Your task to perform on an android device: Search for "alienware aurora" on bestbuy.com, select the first entry, and add it to the cart. Image 0: 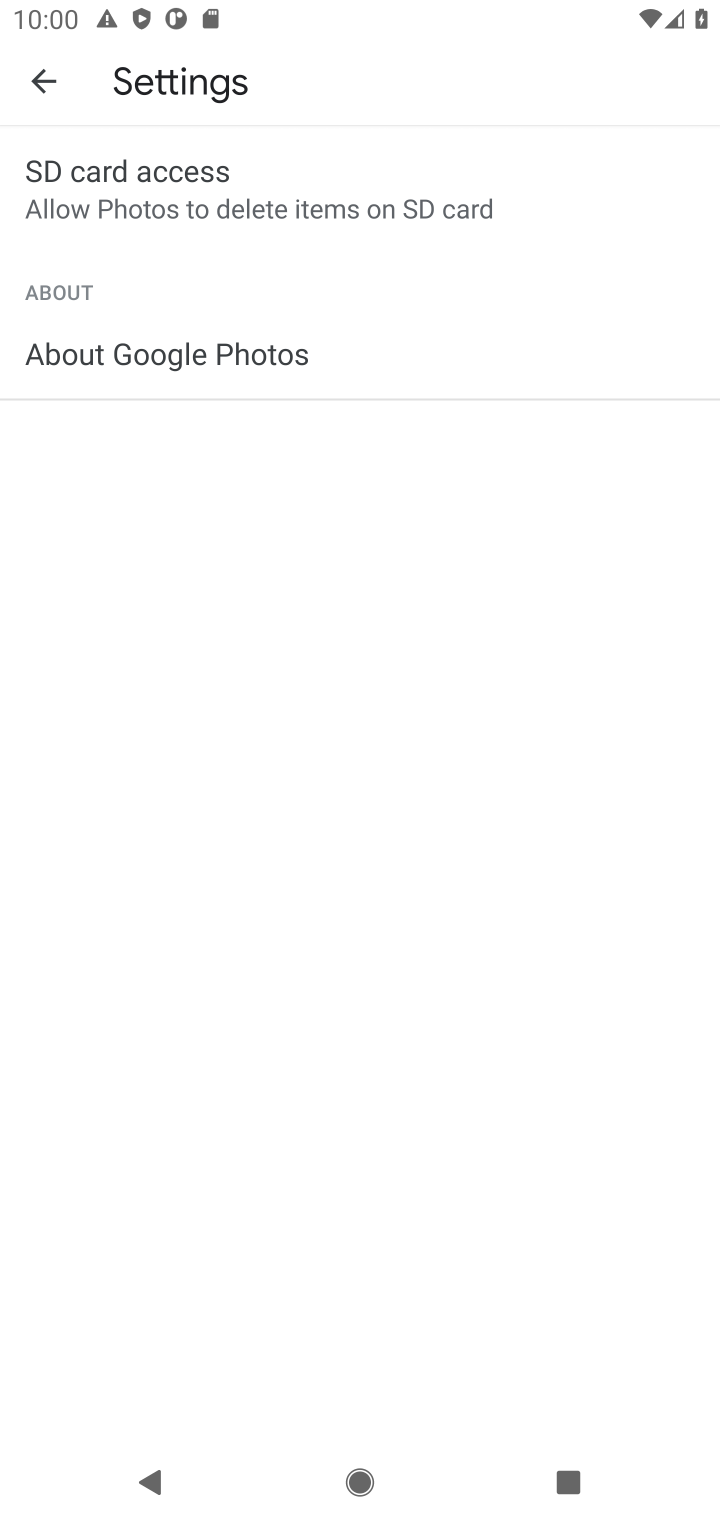
Step 0: press home button
Your task to perform on an android device: Search for "alienware aurora" on bestbuy.com, select the first entry, and add it to the cart. Image 1: 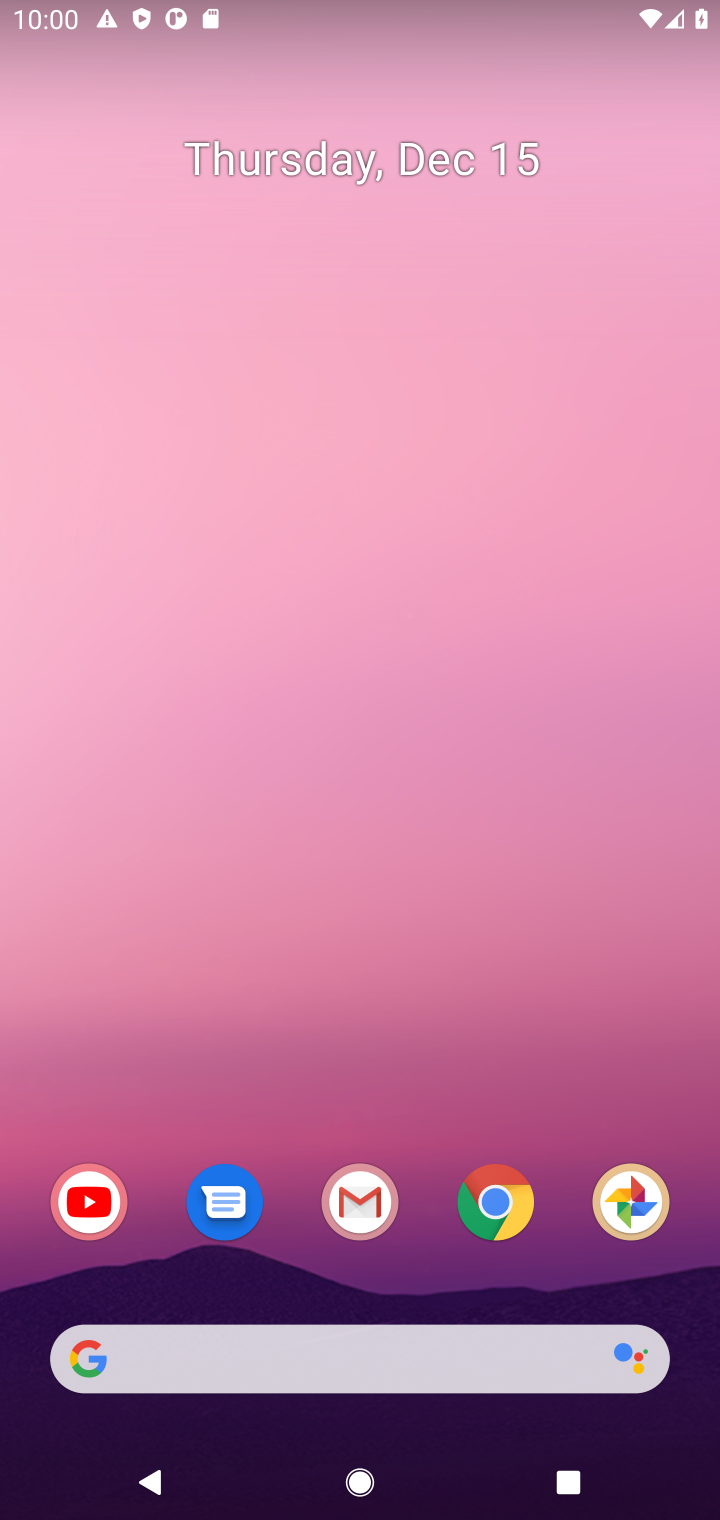
Step 1: click (497, 1209)
Your task to perform on an android device: Search for "alienware aurora" on bestbuy.com, select the first entry, and add it to the cart. Image 2: 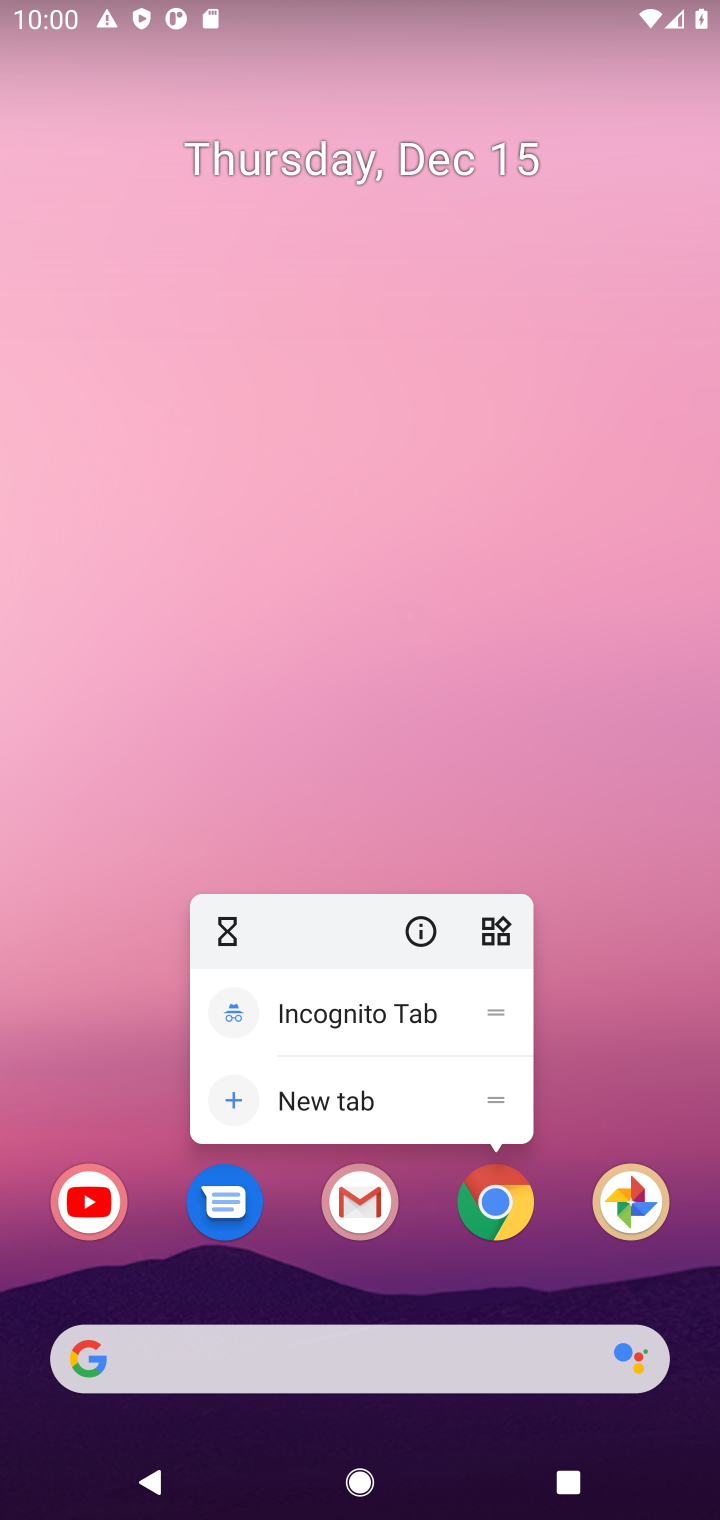
Step 2: click (492, 1211)
Your task to perform on an android device: Search for "alienware aurora" on bestbuy.com, select the first entry, and add it to the cart. Image 3: 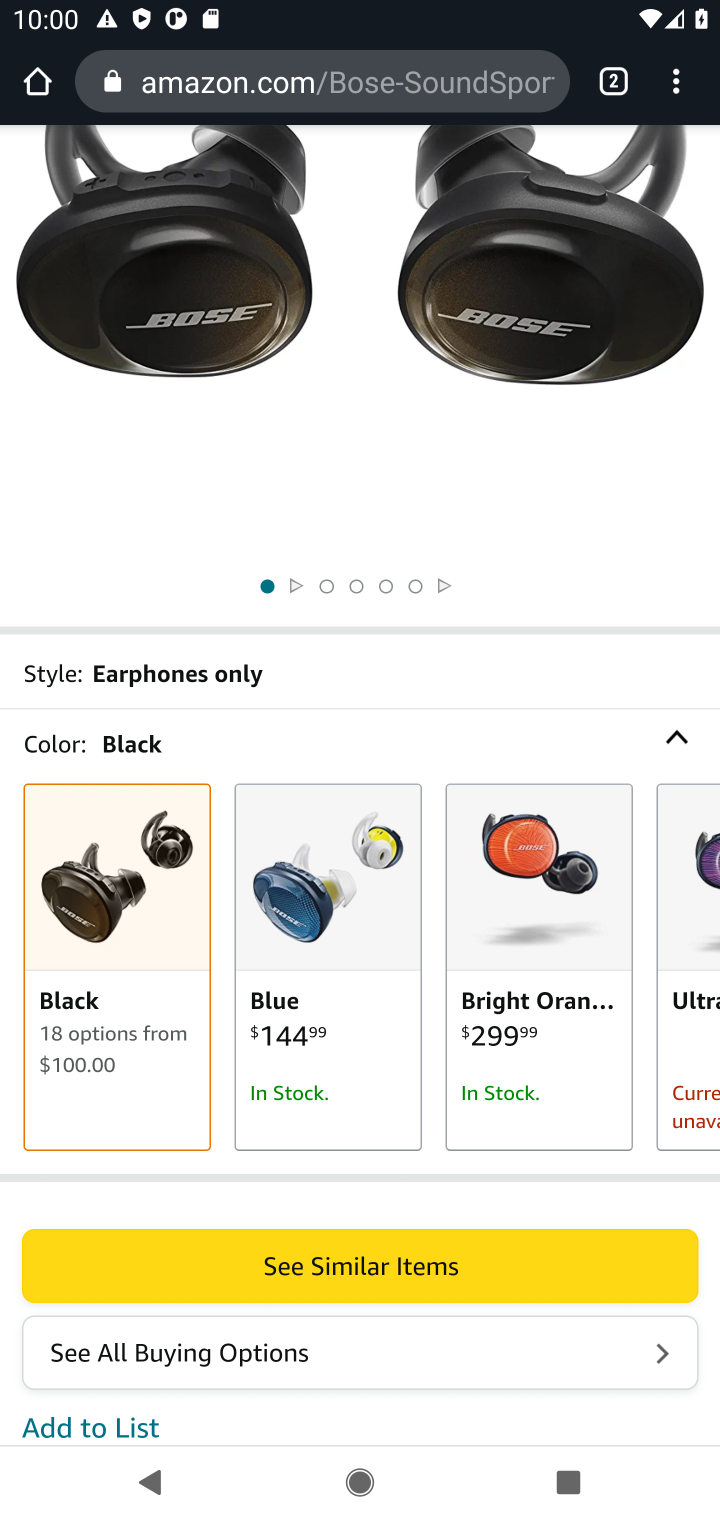
Step 3: click (316, 71)
Your task to perform on an android device: Search for "alienware aurora" on bestbuy.com, select the first entry, and add it to the cart. Image 4: 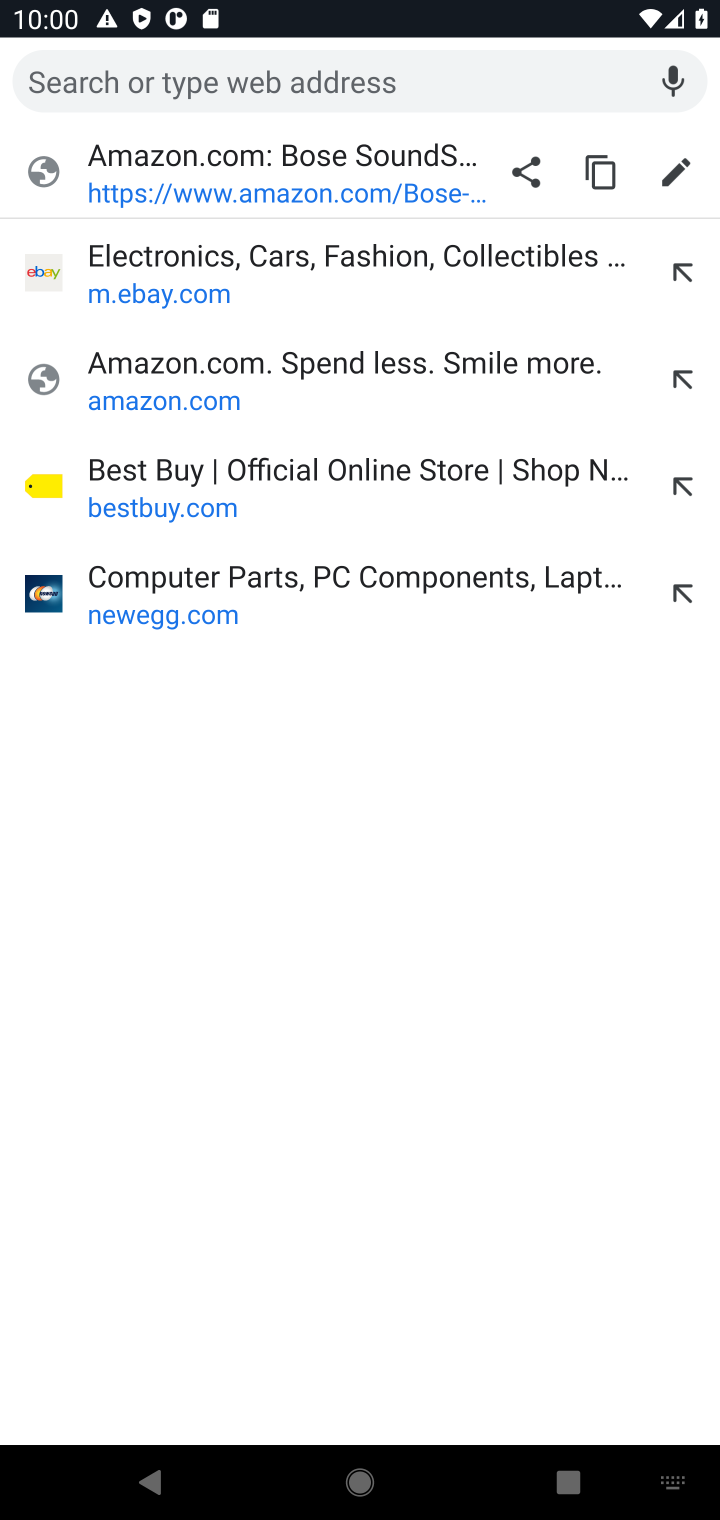
Step 4: click (157, 487)
Your task to perform on an android device: Search for "alienware aurora" on bestbuy.com, select the first entry, and add it to the cart. Image 5: 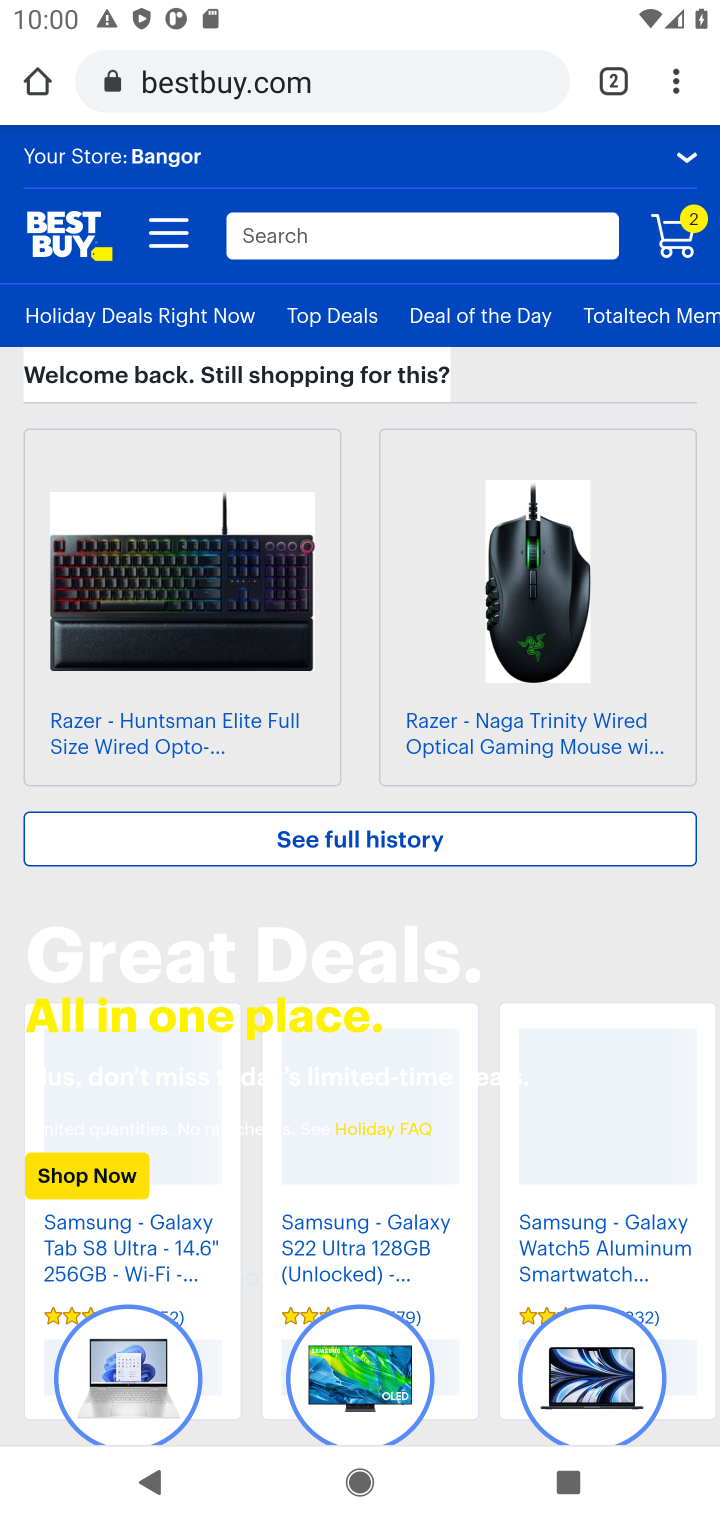
Step 5: click (341, 247)
Your task to perform on an android device: Search for "alienware aurora" on bestbuy.com, select the first entry, and add it to the cart. Image 6: 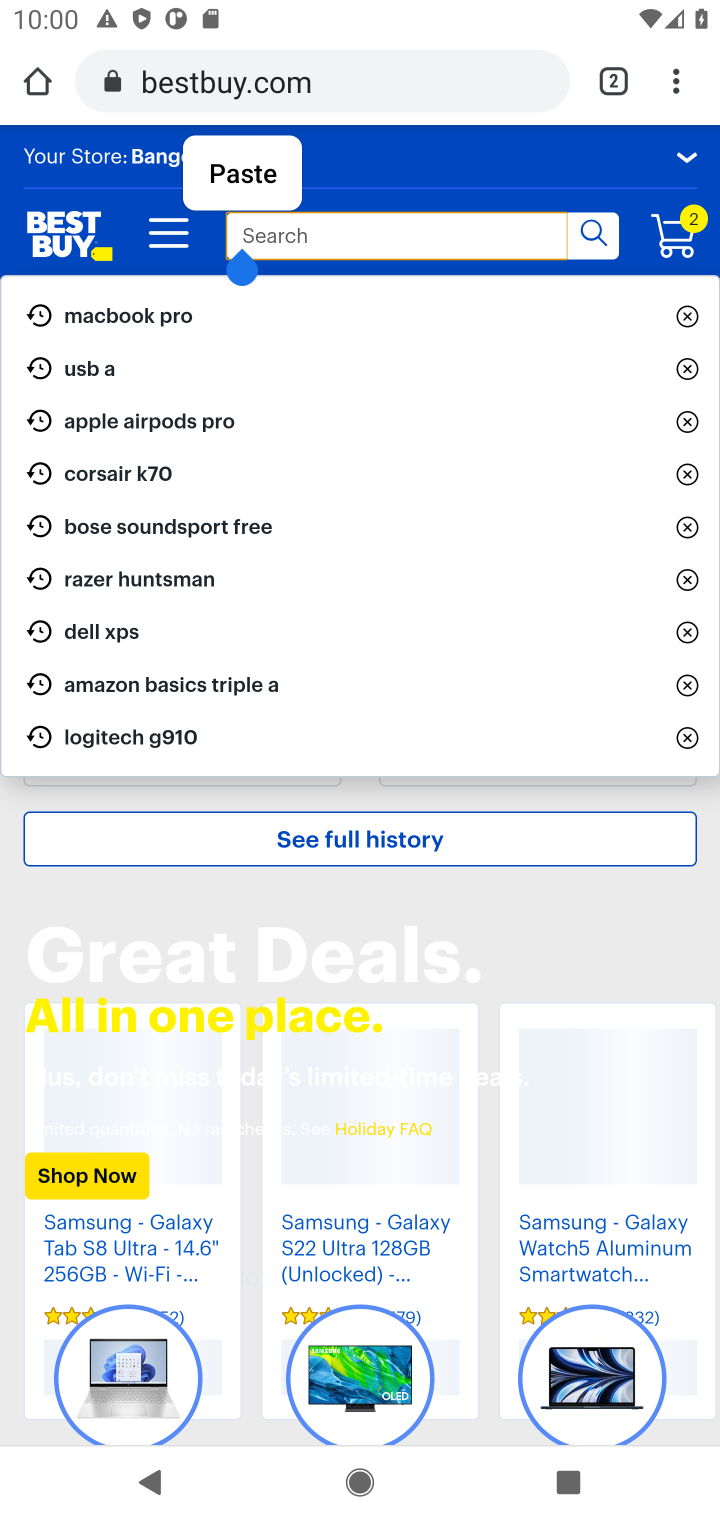
Step 6: type "alienware aurora"
Your task to perform on an android device: Search for "alienware aurora" on bestbuy.com, select the first entry, and add it to the cart. Image 7: 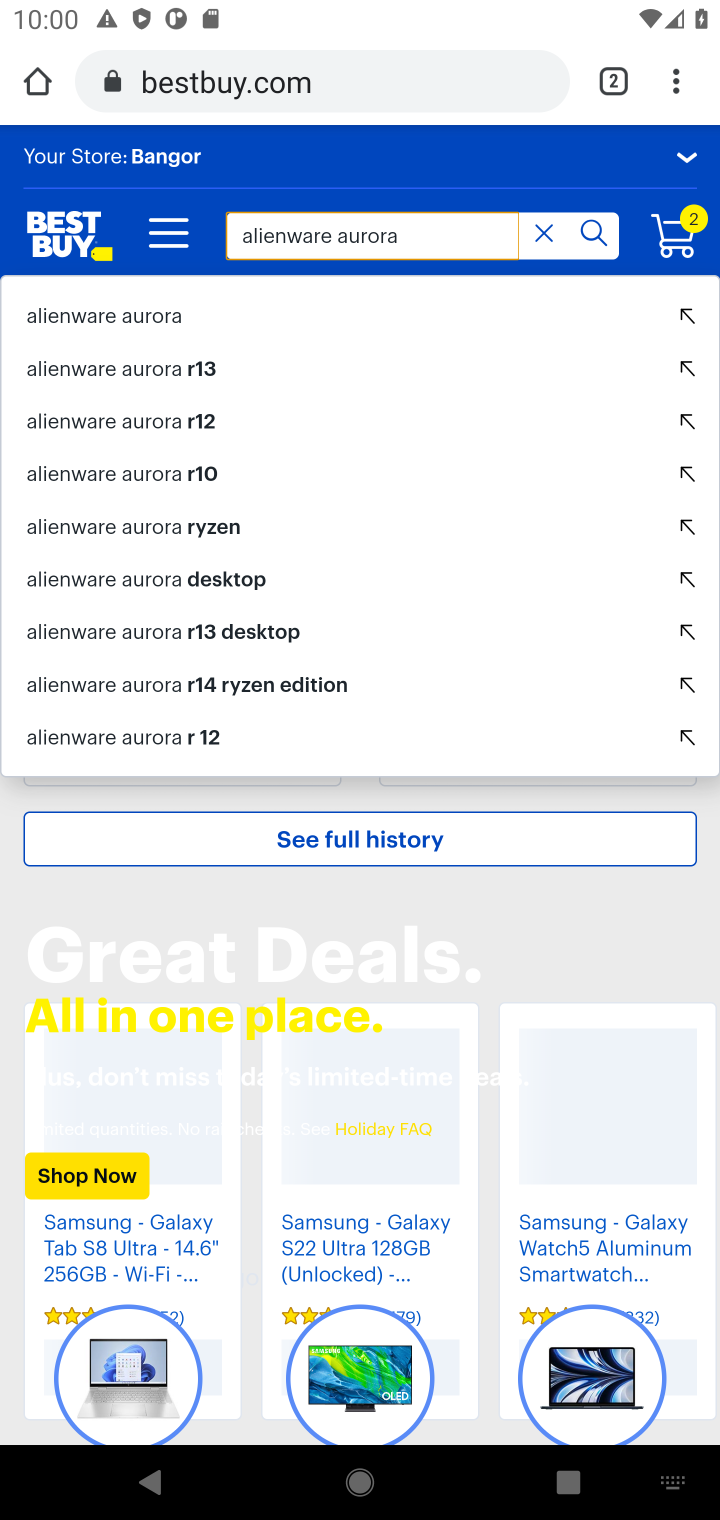
Step 7: click (140, 329)
Your task to perform on an android device: Search for "alienware aurora" on bestbuy.com, select the first entry, and add it to the cart. Image 8: 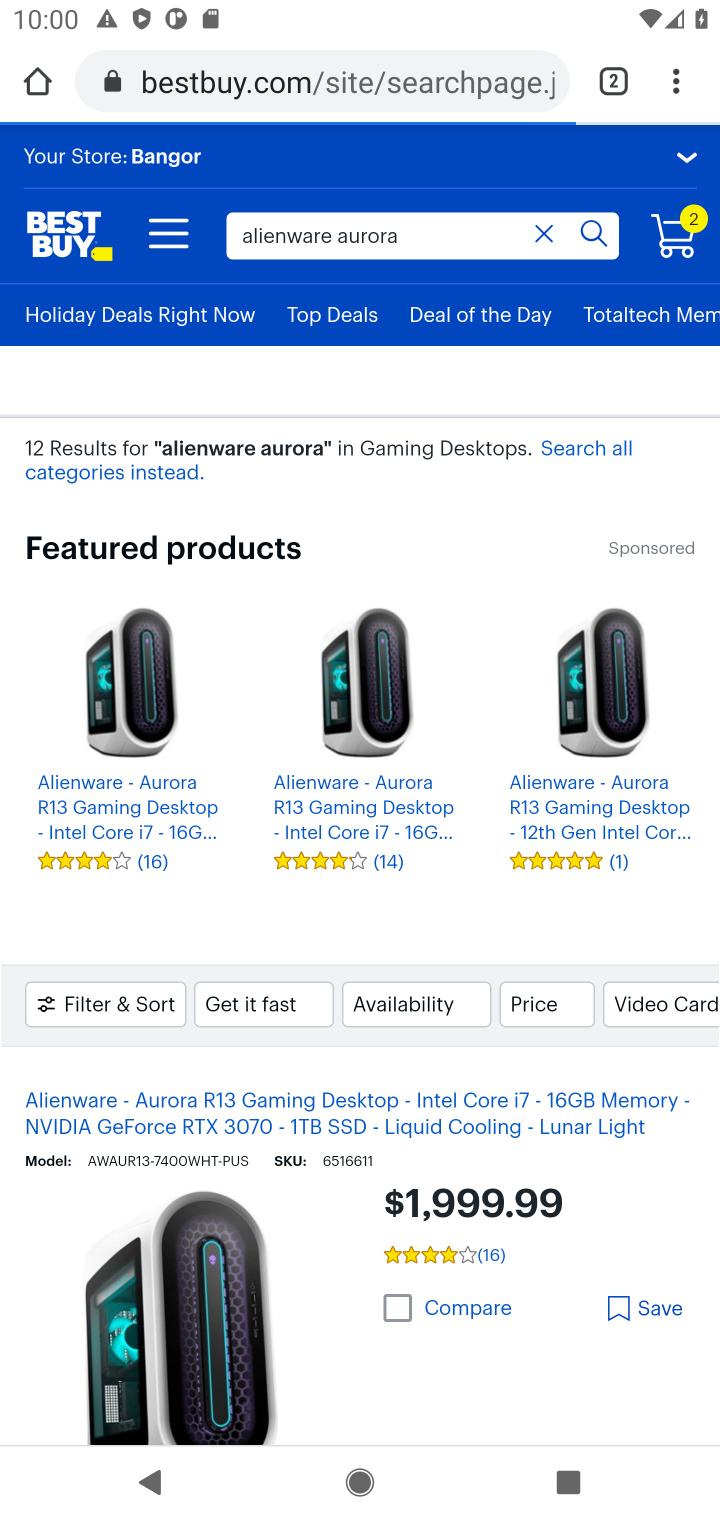
Step 8: drag from (219, 1014) to (235, 469)
Your task to perform on an android device: Search for "alienware aurora" on bestbuy.com, select the first entry, and add it to the cart. Image 9: 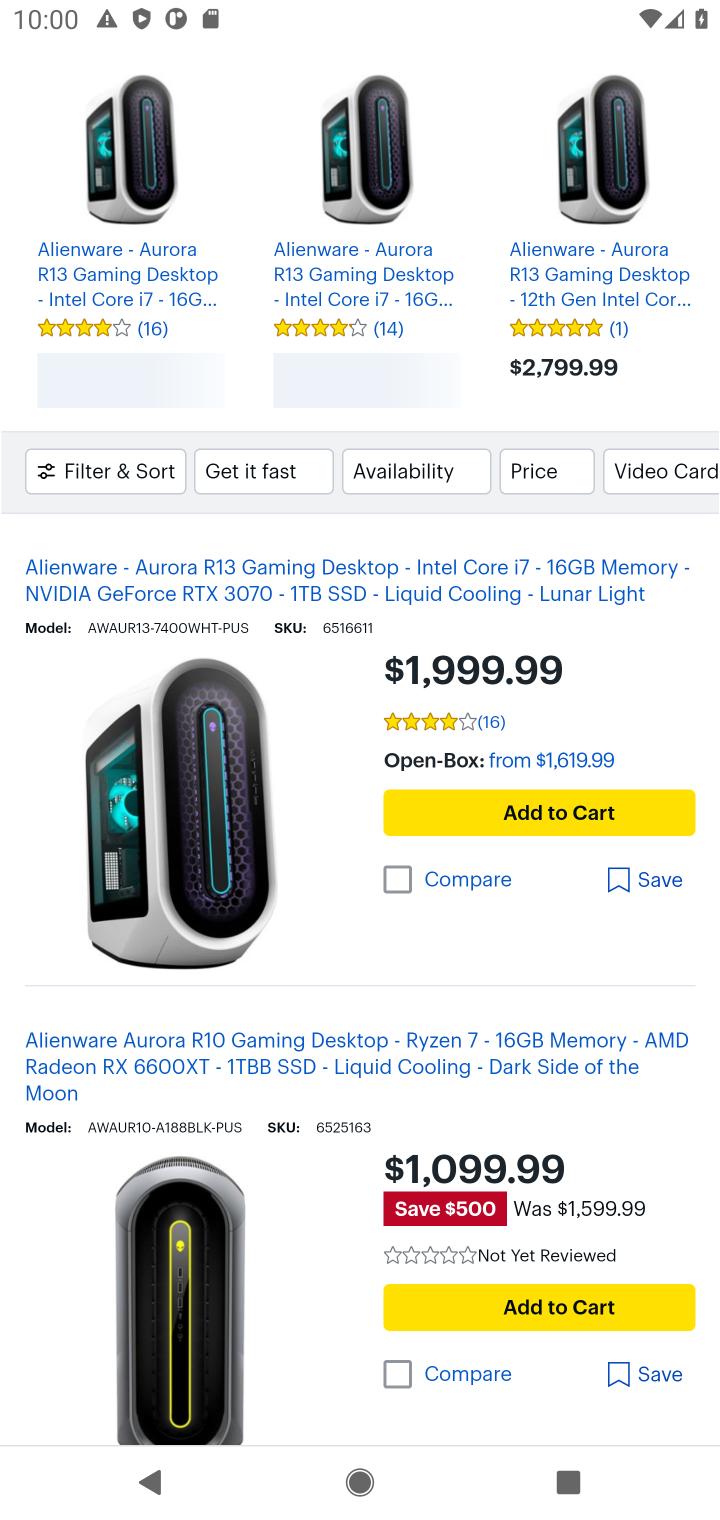
Step 9: click (502, 819)
Your task to perform on an android device: Search for "alienware aurora" on bestbuy.com, select the first entry, and add it to the cart. Image 10: 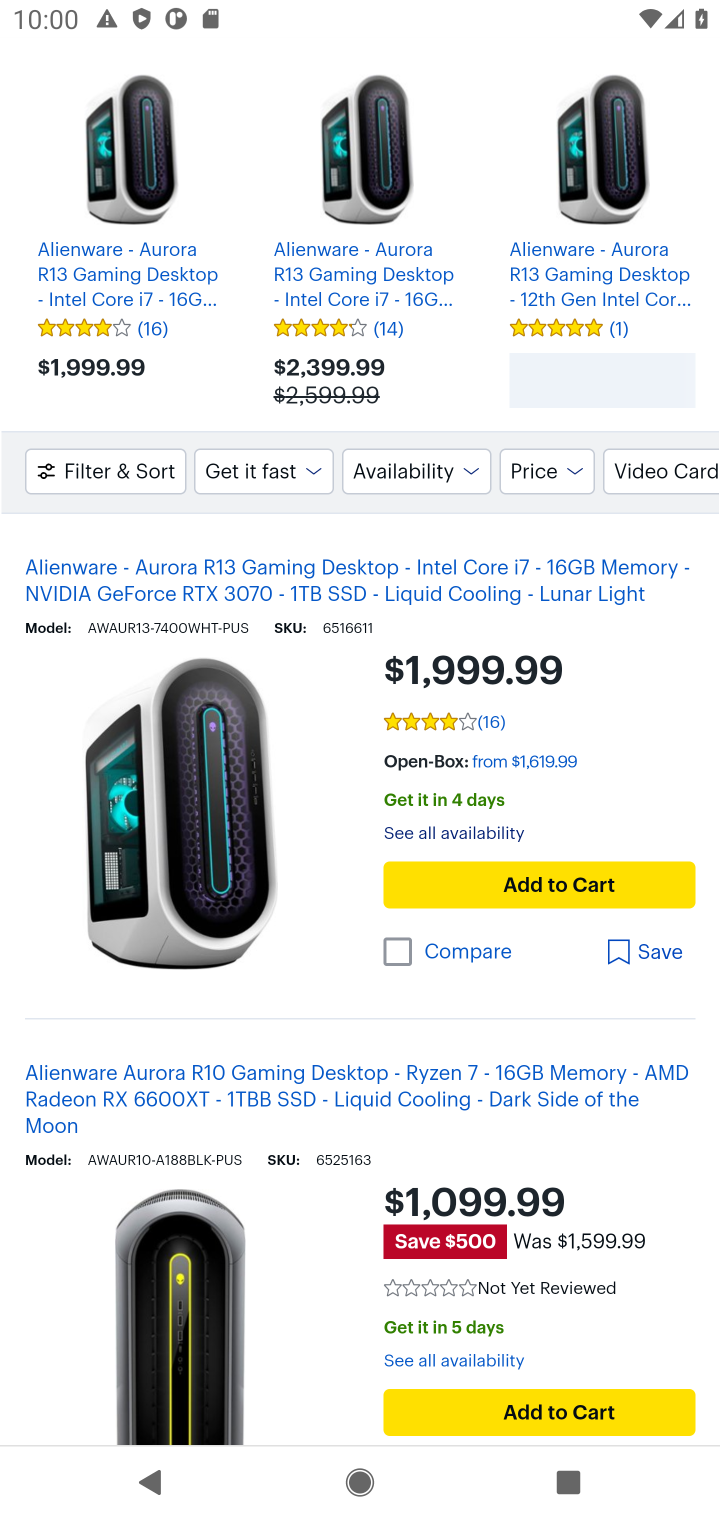
Step 10: click (489, 876)
Your task to perform on an android device: Search for "alienware aurora" on bestbuy.com, select the first entry, and add it to the cart. Image 11: 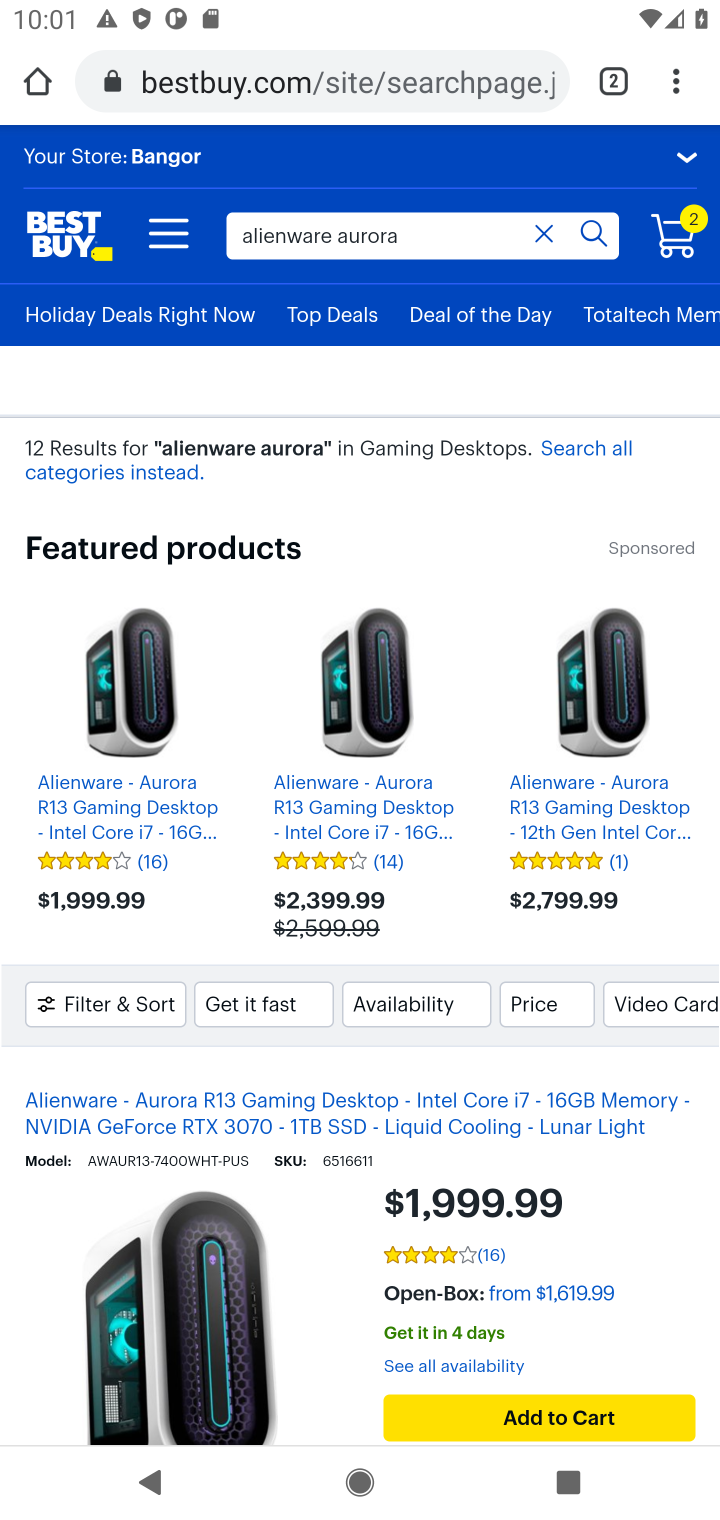
Step 11: drag from (322, 1109) to (368, 613)
Your task to perform on an android device: Search for "alienware aurora" on bestbuy.com, select the first entry, and add it to the cart. Image 12: 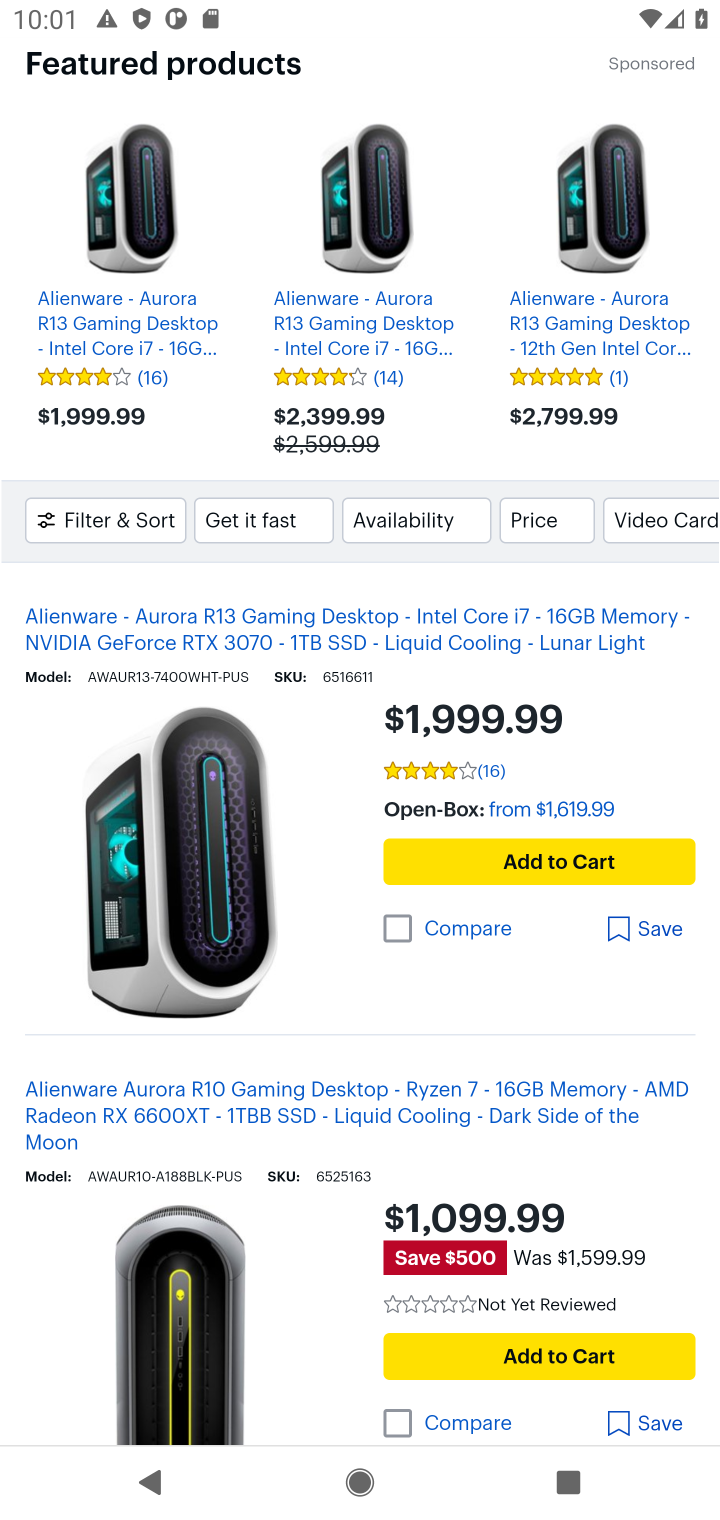
Step 12: click (536, 944)
Your task to perform on an android device: Search for "alienware aurora" on bestbuy.com, select the first entry, and add it to the cart. Image 13: 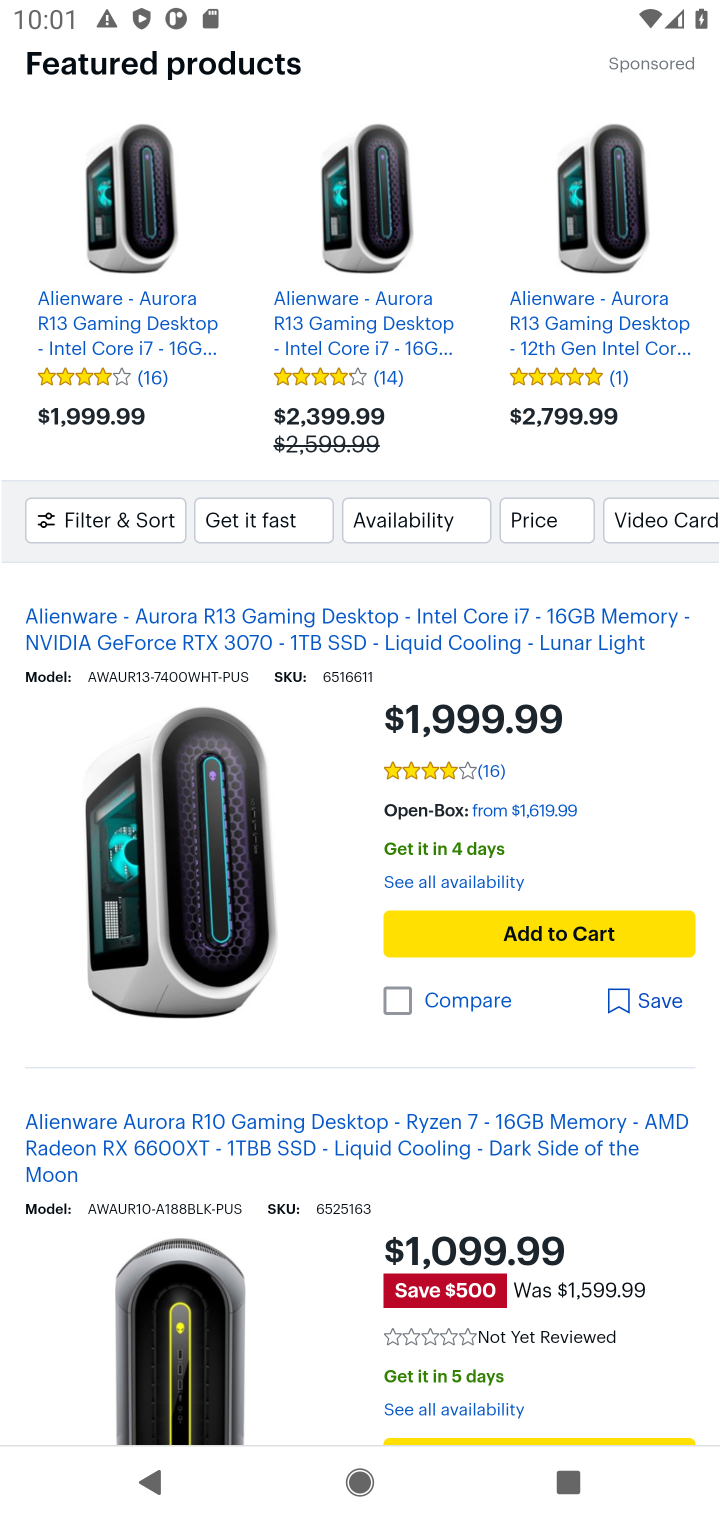
Step 13: click (551, 867)
Your task to perform on an android device: Search for "alienware aurora" on bestbuy.com, select the first entry, and add it to the cart. Image 14: 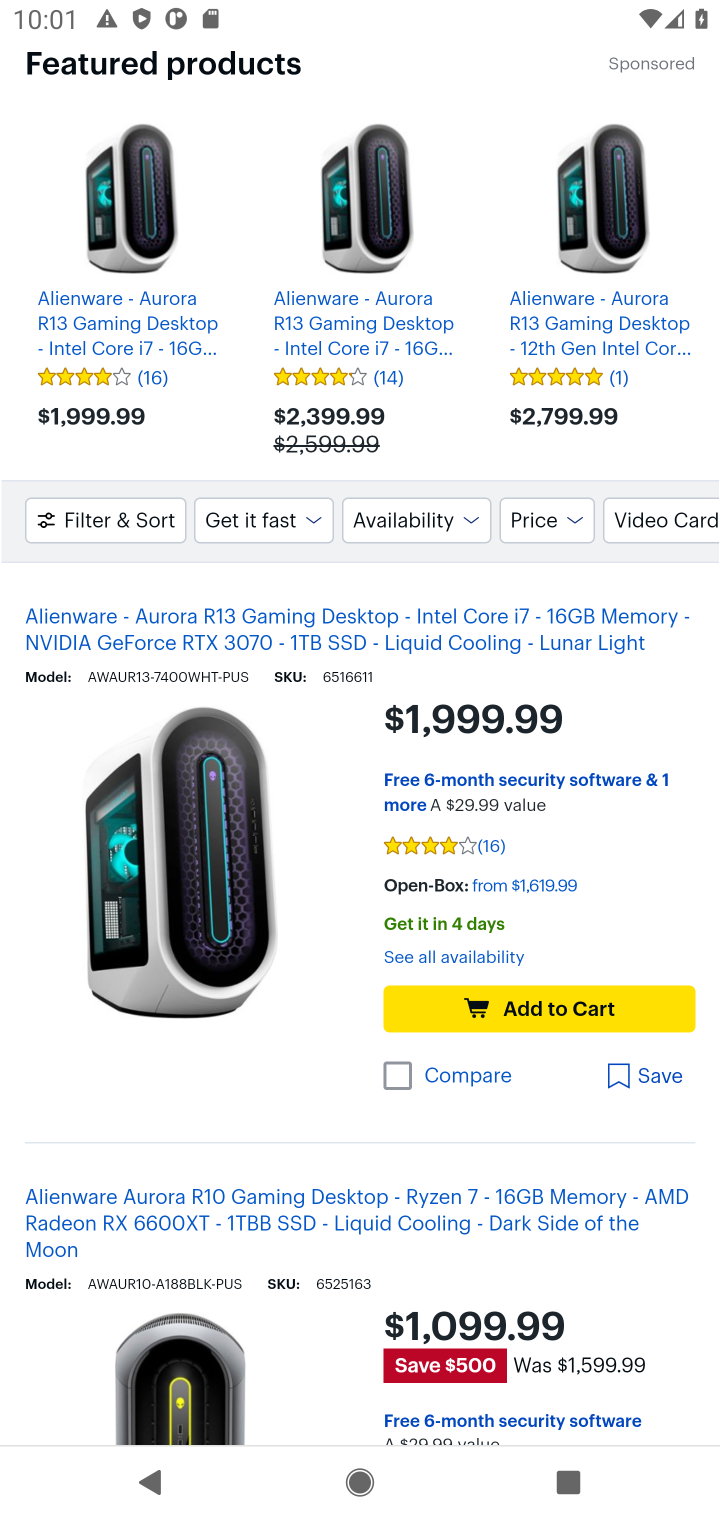
Step 14: click (537, 941)
Your task to perform on an android device: Search for "alienware aurora" on bestbuy.com, select the first entry, and add it to the cart. Image 15: 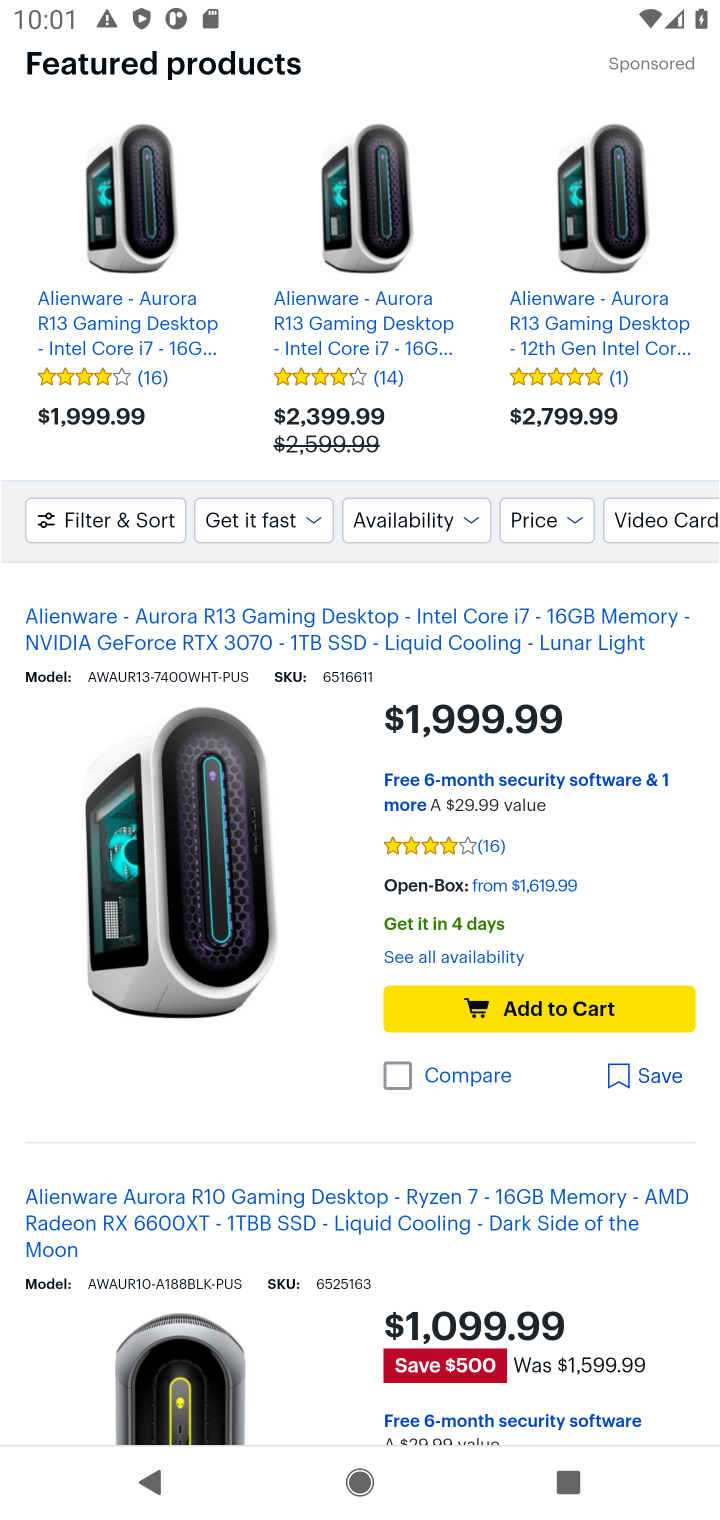
Step 15: click (520, 1008)
Your task to perform on an android device: Search for "alienware aurora" on bestbuy.com, select the first entry, and add it to the cart. Image 16: 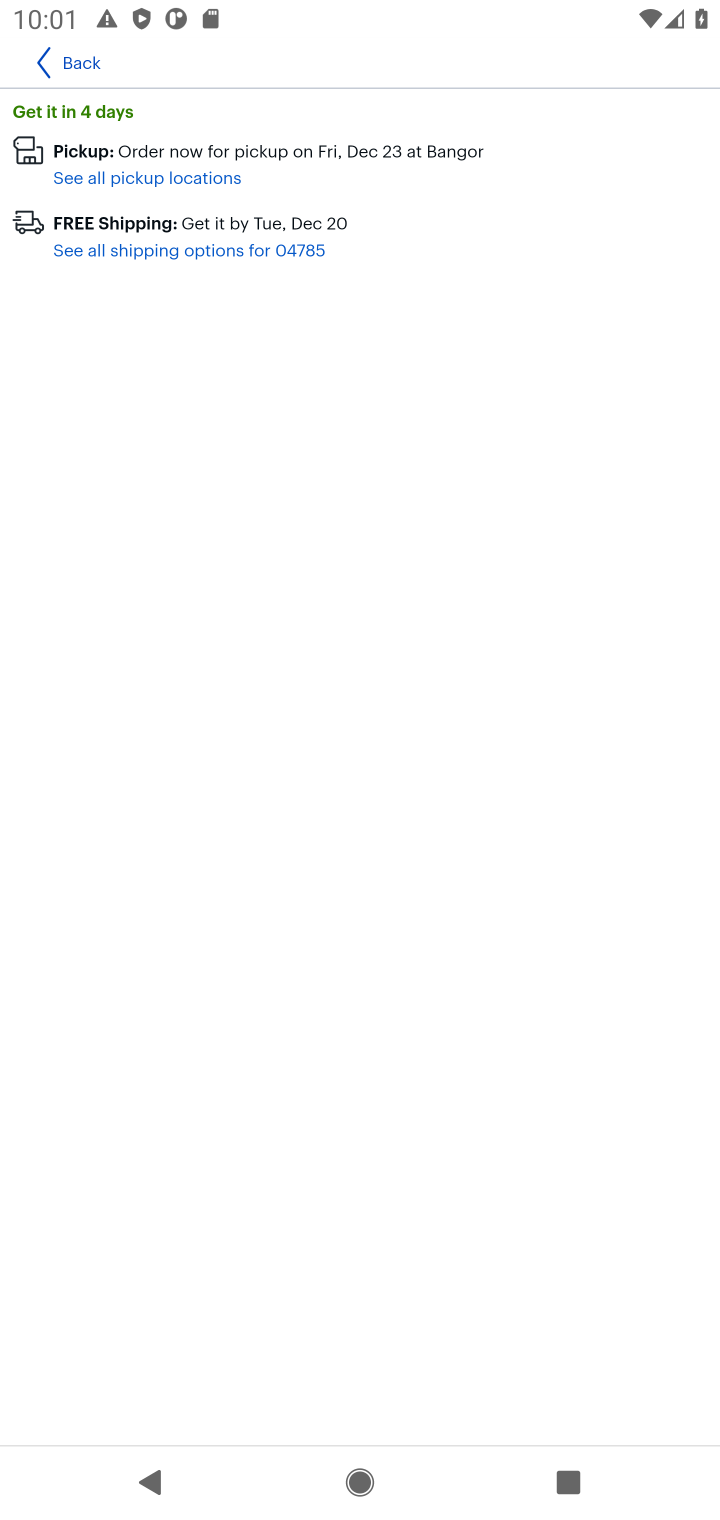
Step 16: click (59, 62)
Your task to perform on an android device: Search for "alienware aurora" on bestbuy.com, select the first entry, and add it to the cart. Image 17: 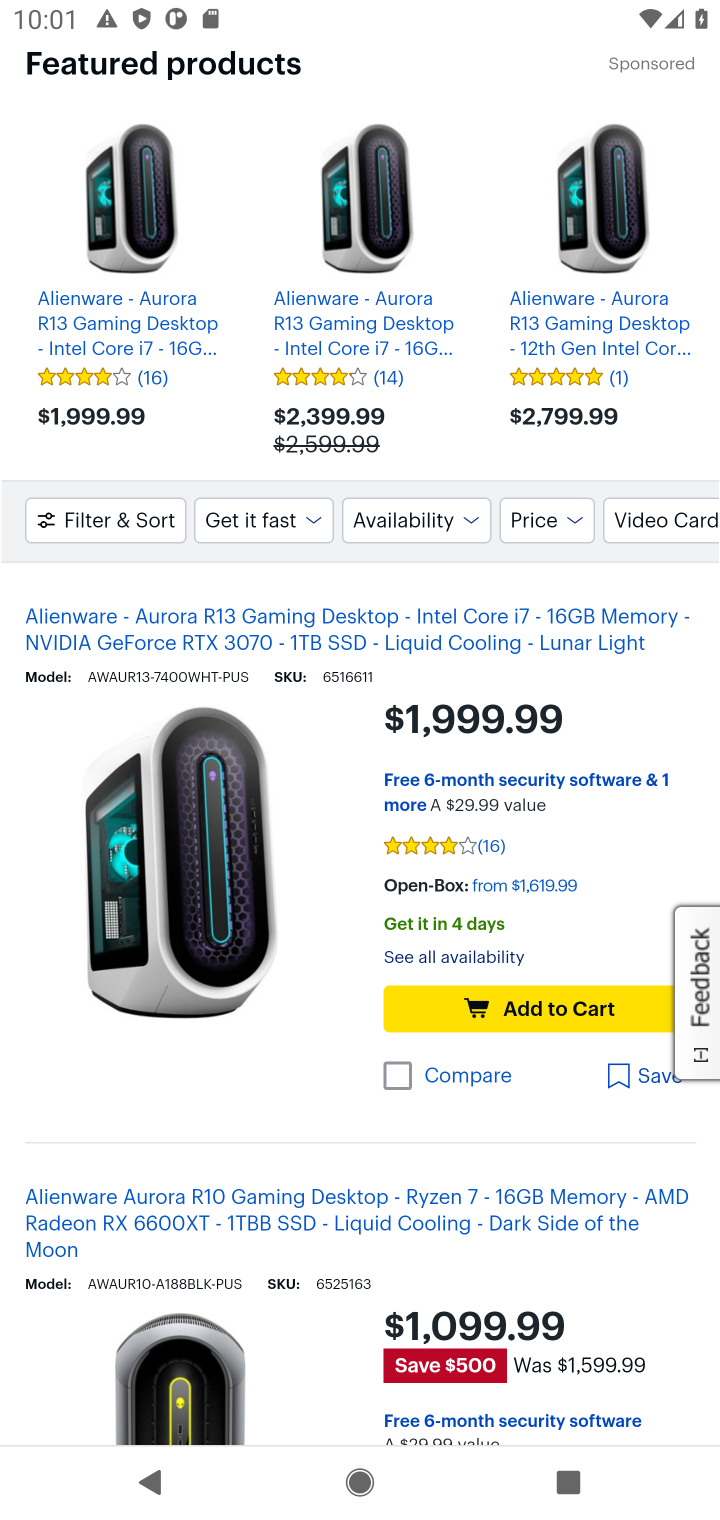
Step 17: click (497, 1013)
Your task to perform on an android device: Search for "alienware aurora" on bestbuy.com, select the first entry, and add it to the cart. Image 18: 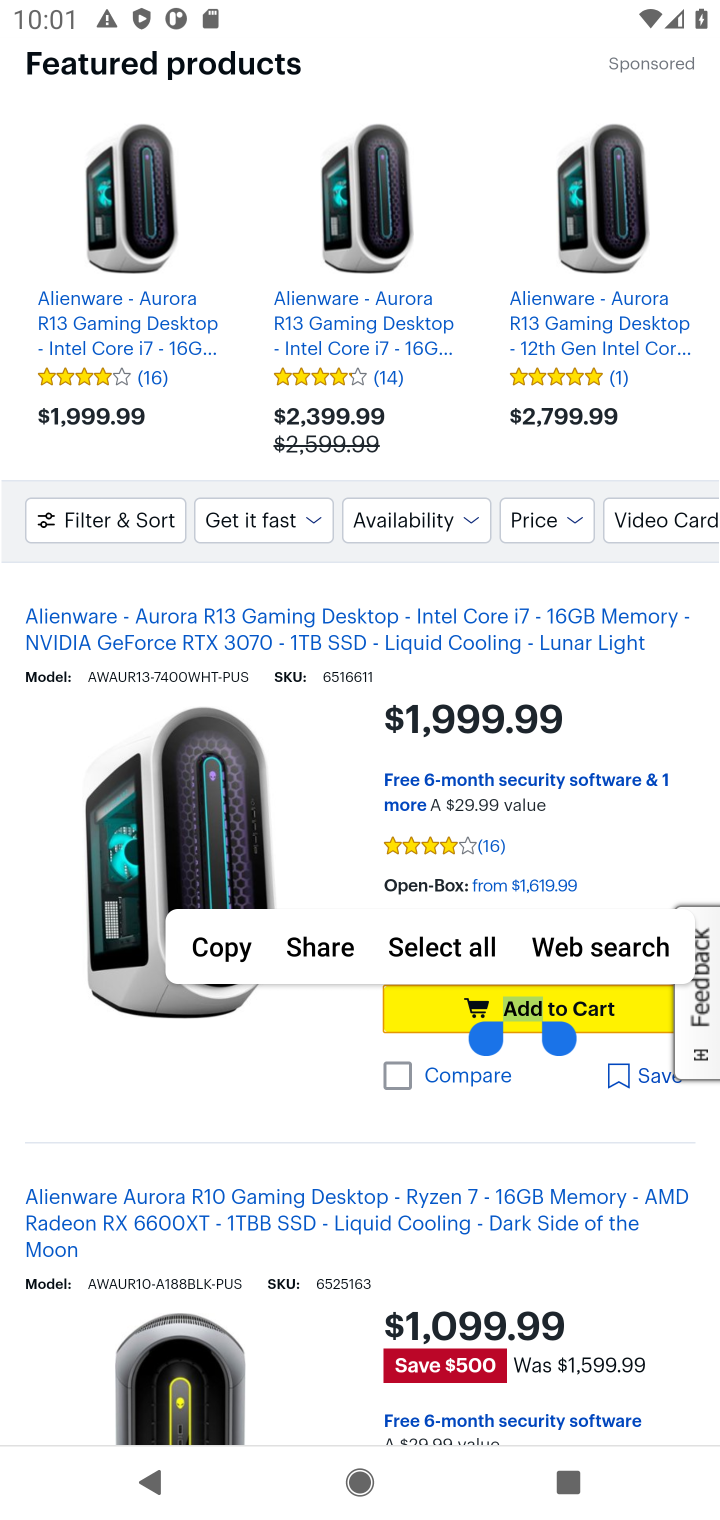
Step 18: click (554, 1005)
Your task to perform on an android device: Search for "alienware aurora" on bestbuy.com, select the first entry, and add it to the cart. Image 19: 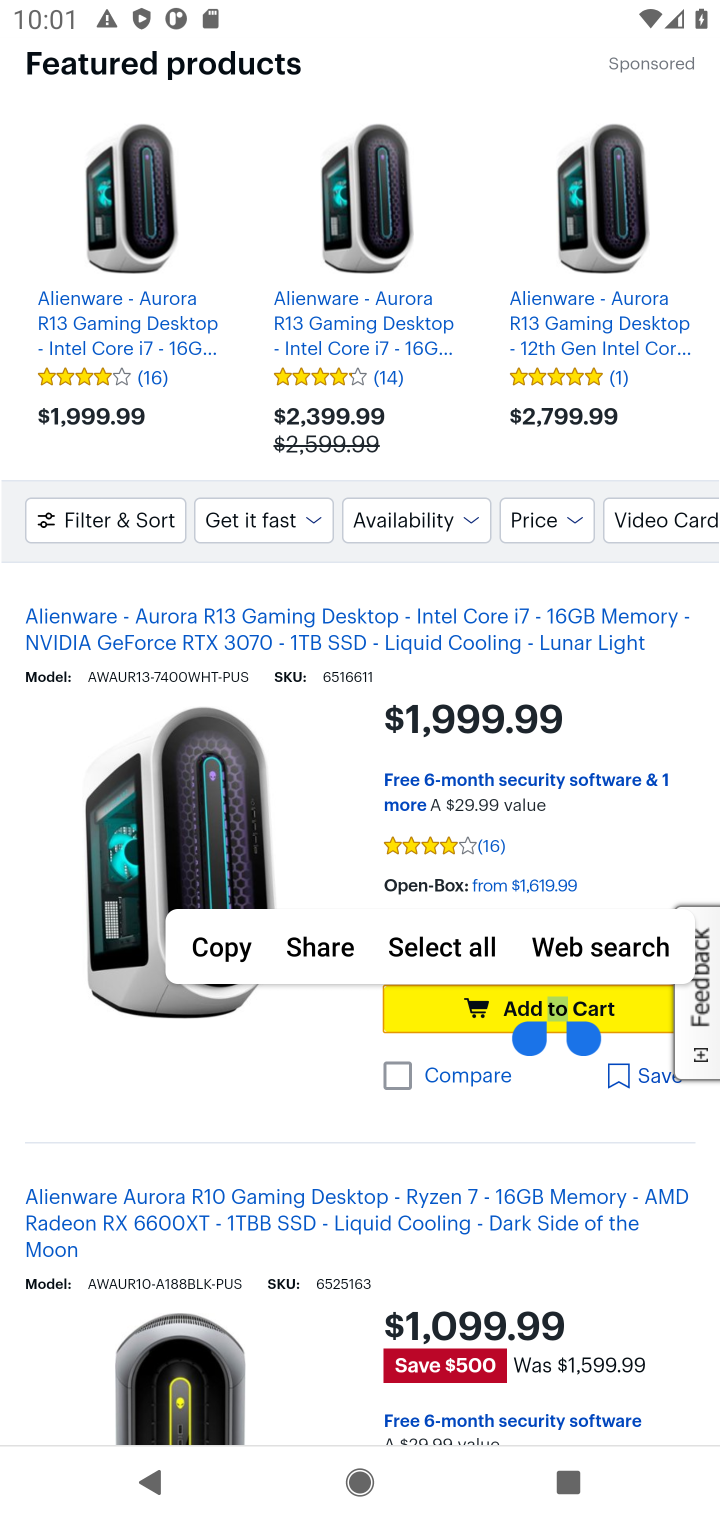
Step 19: click (585, 1015)
Your task to perform on an android device: Search for "alienware aurora" on bestbuy.com, select the first entry, and add it to the cart. Image 20: 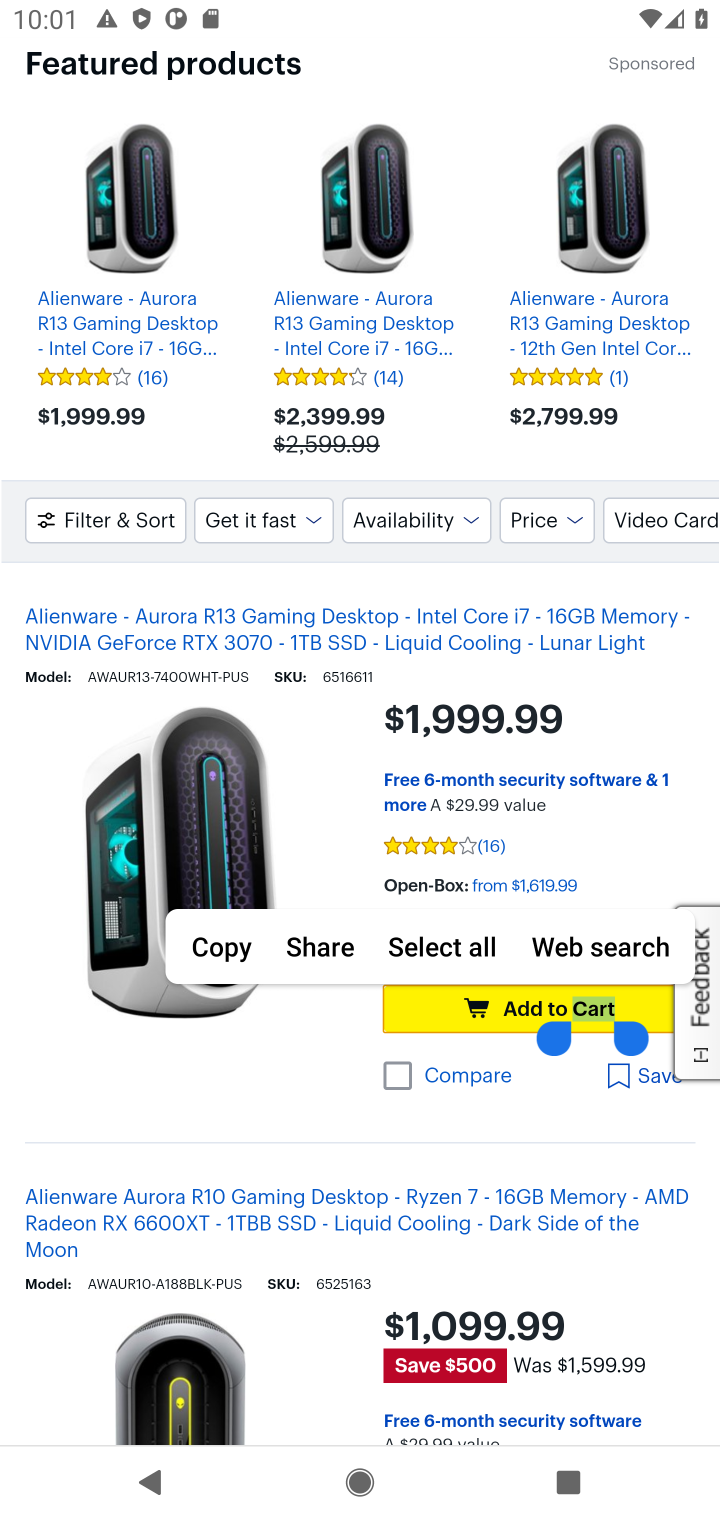
Step 20: click (623, 1017)
Your task to perform on an android device: Search for "alienware aurora" on bestbuy.com, select the first entry, and add it to the cart. Image 21: 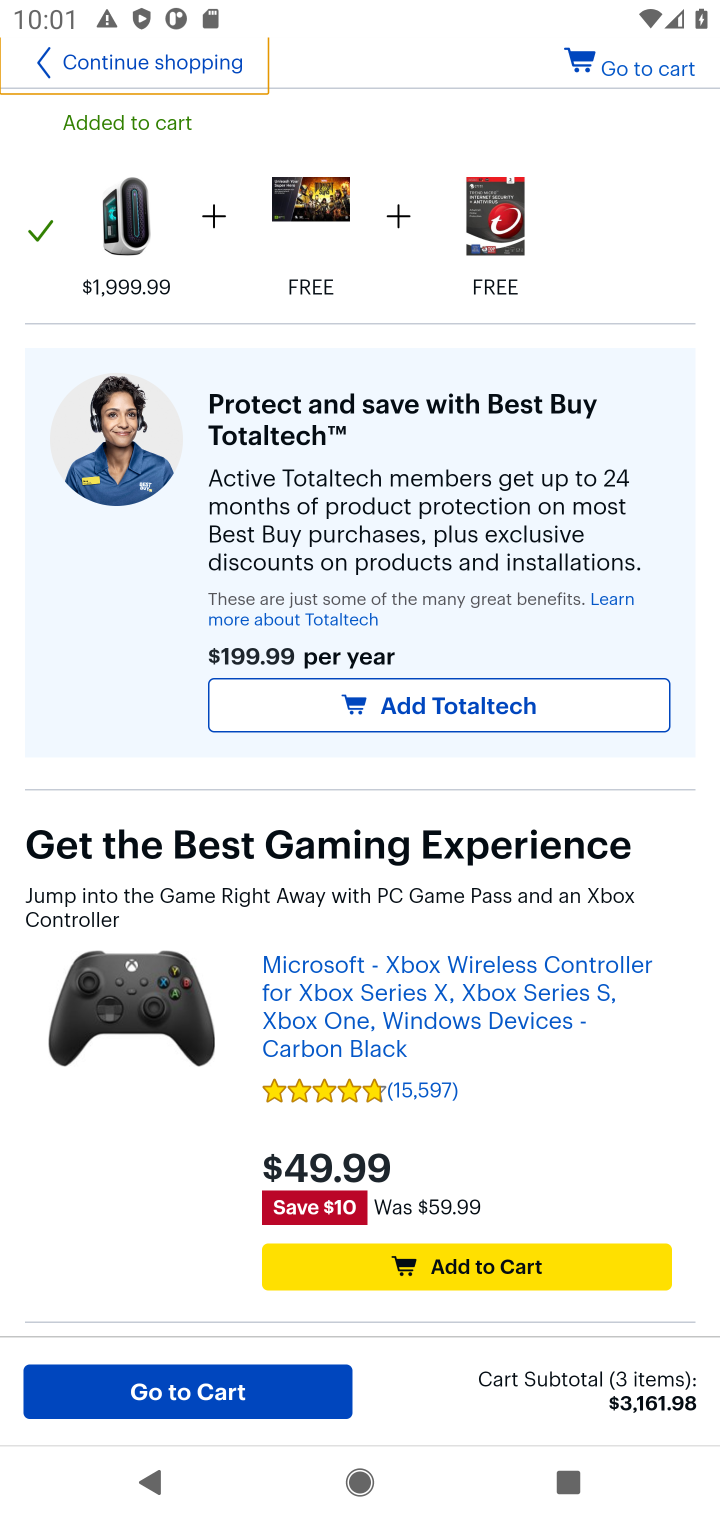
Step 21: task complete